Your task to perform on an android device: empty trash in google photos Image 0: 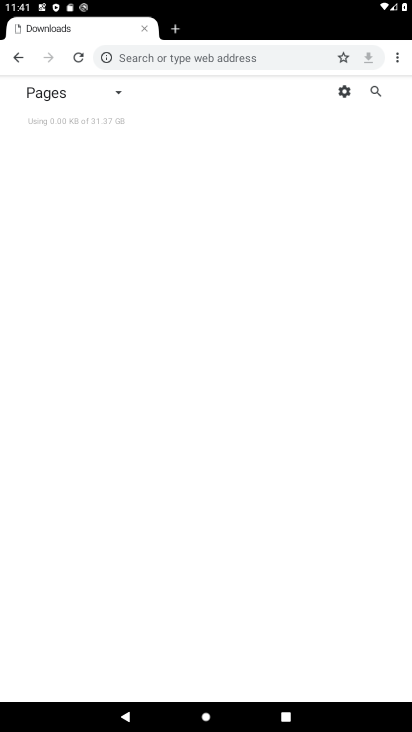
Step 0: press home button
Your task to perform on an android device: empty trash in google photos Image 1: 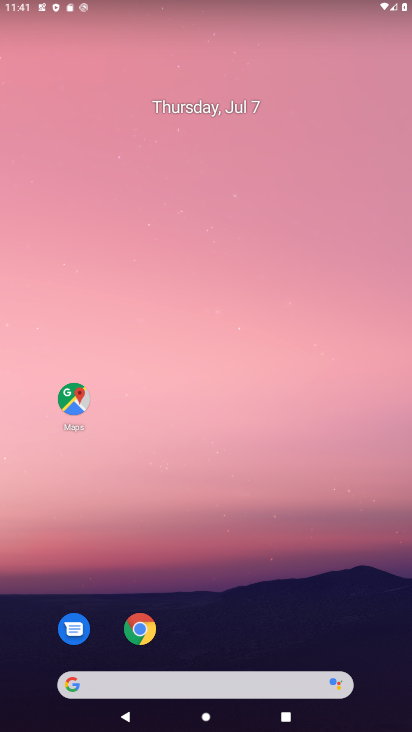
Step 1: drag from (363, 633) to (315, 47)
Your task to perform on an android device: empty trash in google photos Image 2: 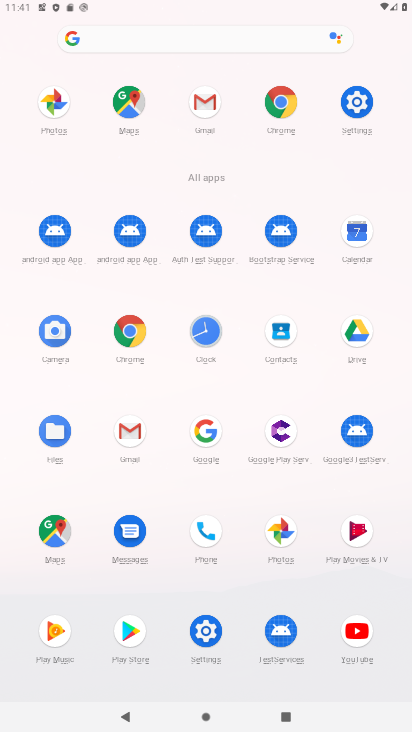
Step 2: click (283, 533)
Your task to perform on an android device: empty trash in google photos Image 3: 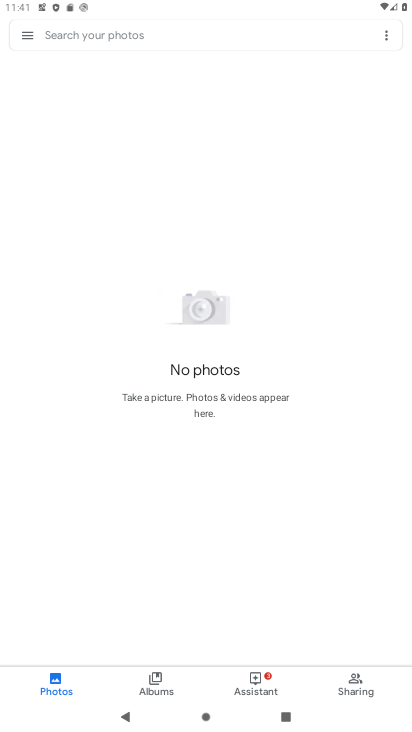
Step 3: click (27, 37)
Your task to perform on an android device: empty trash in google photos Image 4: 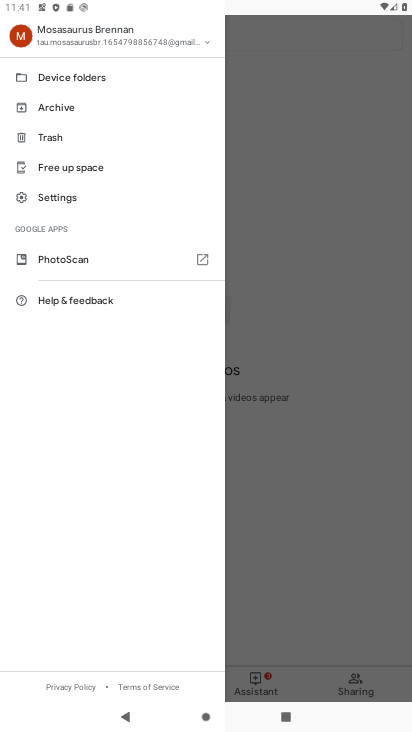
Step 4: click (49, 129)
Your task to perform on an android device: empty trash in google photos Image 5: 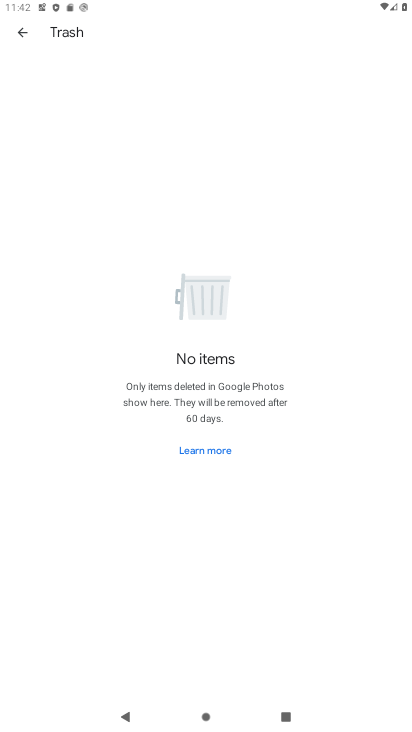
Step 5: task complete